Your task to perform on an android device: delete location history Image 0: 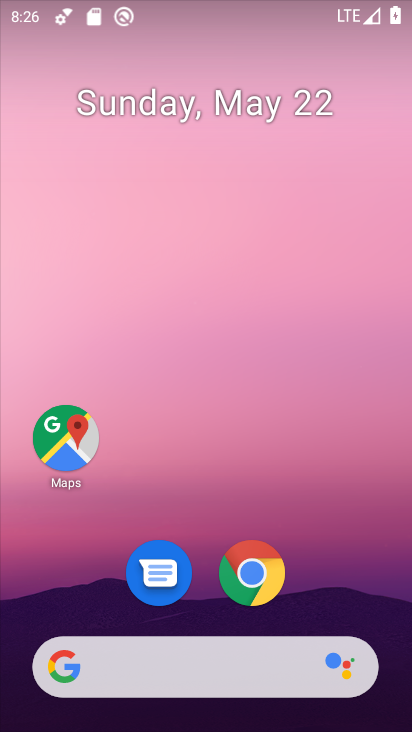
Step 0: drag from (204, 596) to (260, 174)
Your task to perform on an android device: delete location history Image 1: 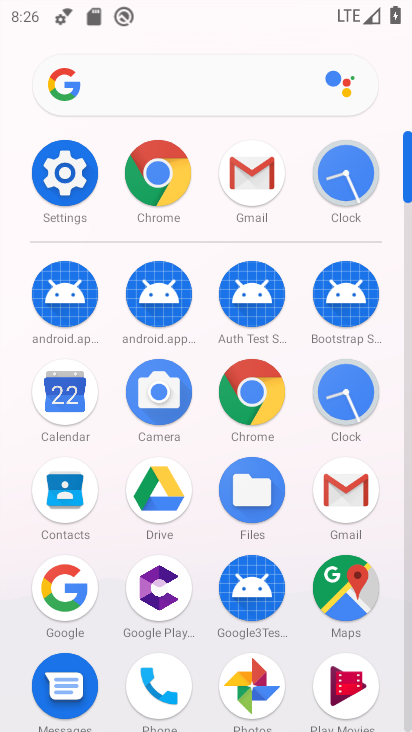
Step 1: click (55, 173)
Your task to perform on an android device: delete location history Image 2: 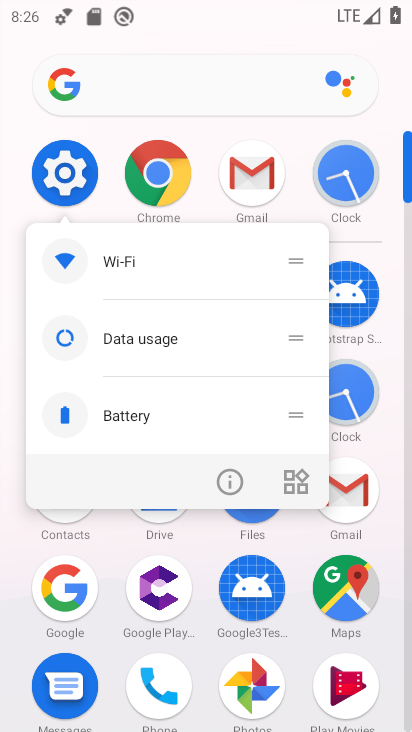
Step 2: click (229, 491)
Your task to perform on an android device: delete location history Image 3: 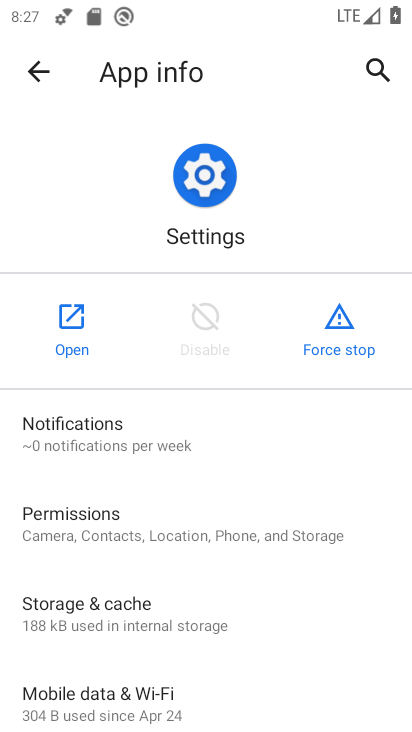
Step 3: click (69, 323)
Your task to perform on an android device: delete location history Image 4: 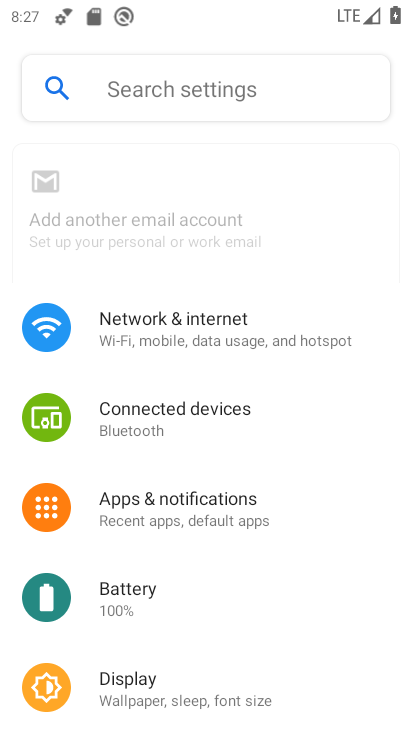
Step 4: drag from (192, 517) to (264, 13)
Your task to perform on an android device: delete location history Image 5: 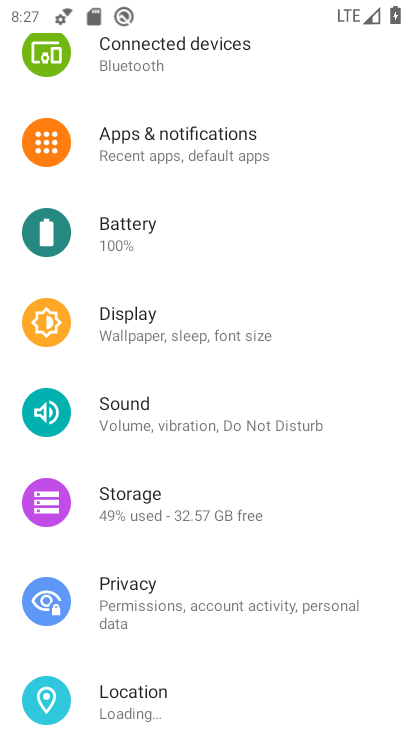
Step 5: drag from (218, 562) to (290, 36)
Your task to perform on an android device: delete location history Image 6: 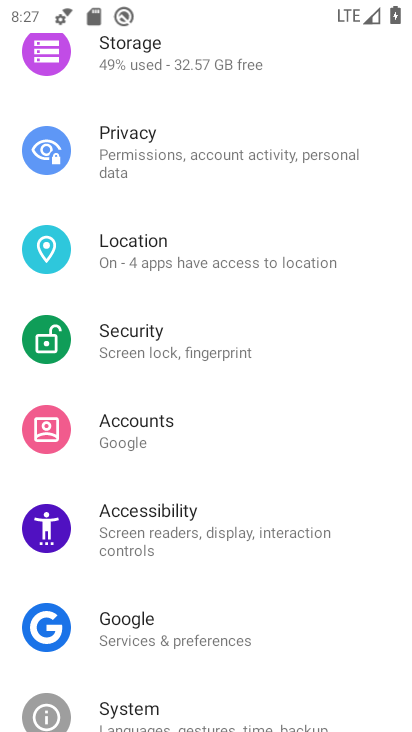
Step 6: click (187, 266)
Your task to perform on an android device: delete location history Image 7: 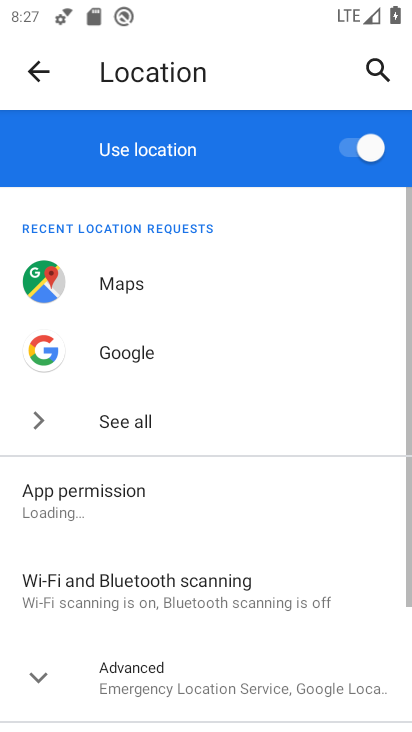
Step 7: drag from (257, 541) to (317, 87)
Your task to perform on an android device: delete location history Image 8: 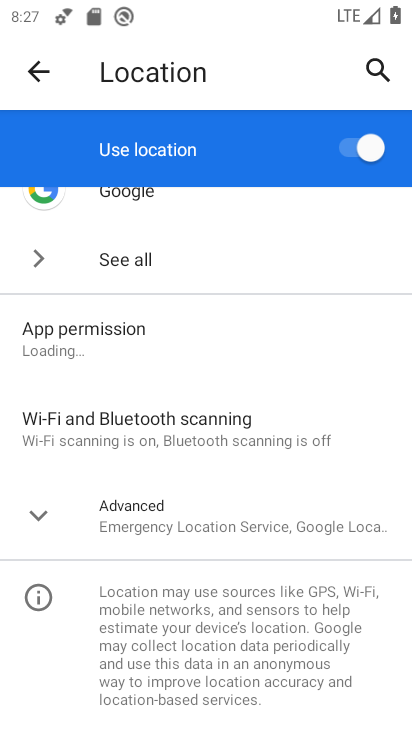
Step 8: click (67, 519)
Your task to perform on an android device: delete location history Image 9: 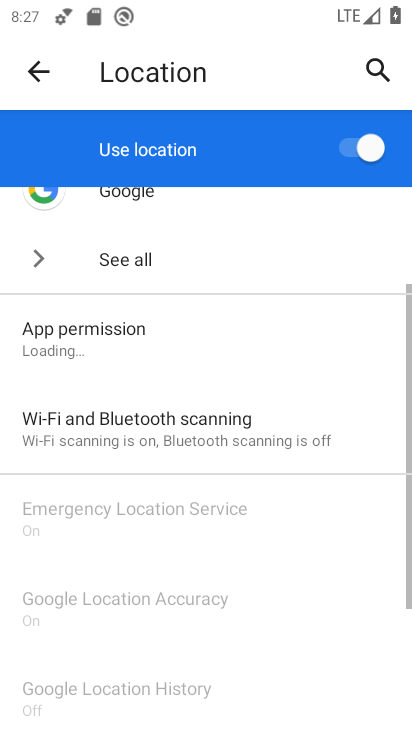
Step 9: drag from (79, 522) to (273, 79)
Your task to perform on an android device: delete location history Image 10: 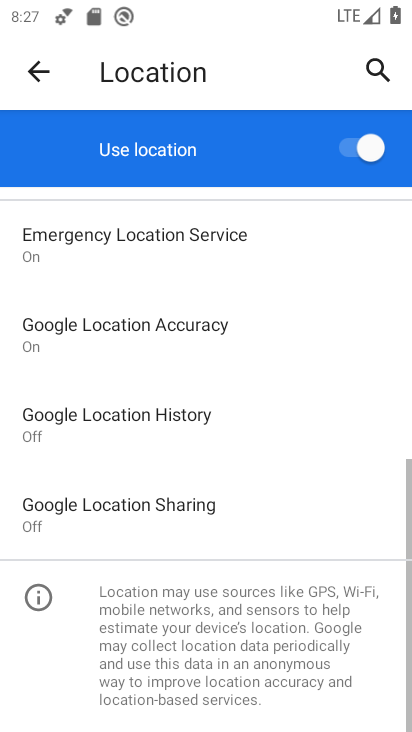
Step 10: click (114, 398)
Your task to perform on an android device: delete location history Image 11: 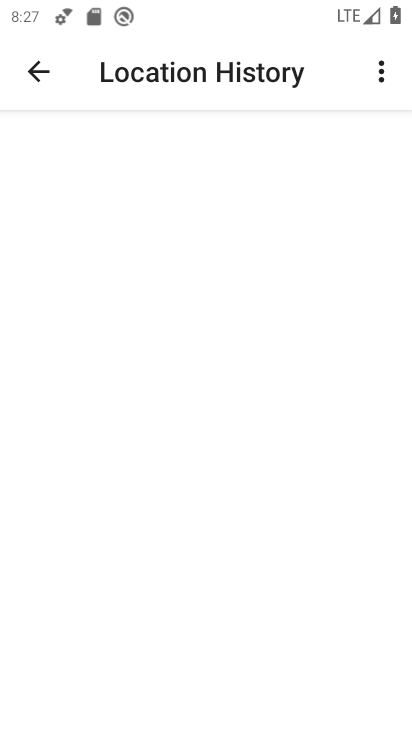
Step 11: drag from (264, 319) to (291, 115)
Your task to perform on an android device: delete location history Image 12: 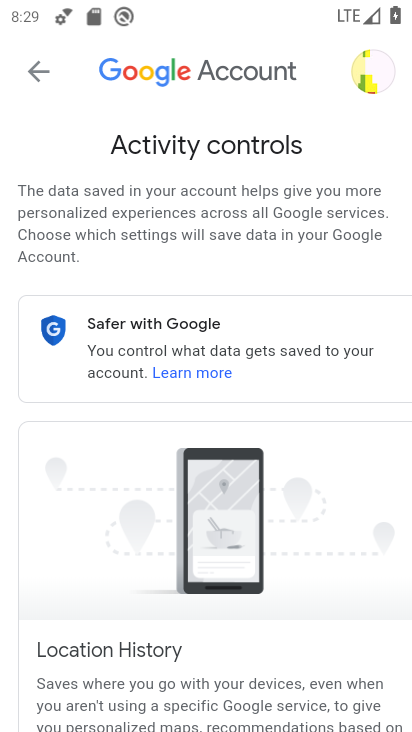
Step 12: drag from (180, 269) to (217, 5)
Your task to perform on an android device: delete location history Image 13: 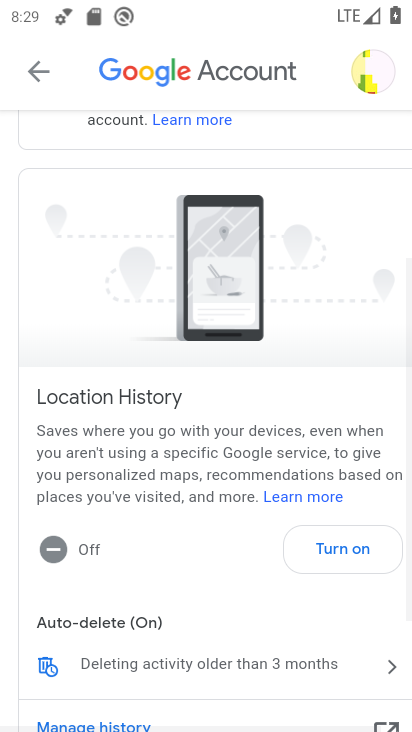
Step 13: drag from (167, 666) to (250, 97)
Your task to perform on an android device: delete location history Image 14: 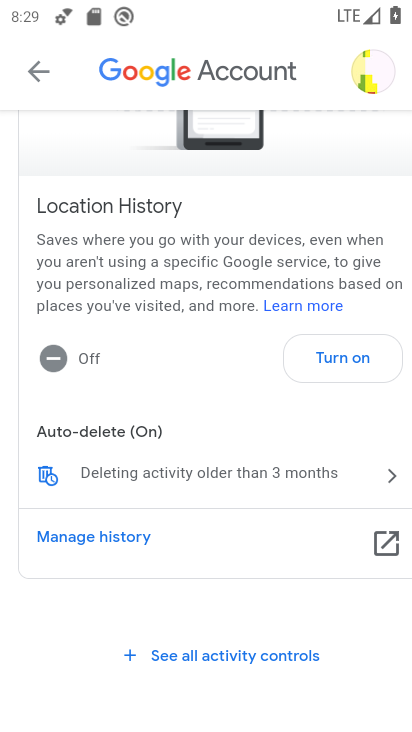
Step 14: click (48, 475)
Your task to perform on an android device: delete location history Image 15: 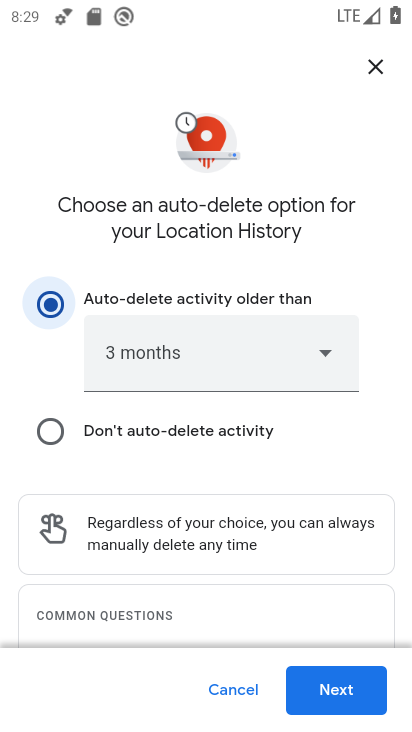
Step 15: drag from (246, 286) to (266, 149)
Your task to perform on an android device: delete location history Image 16: 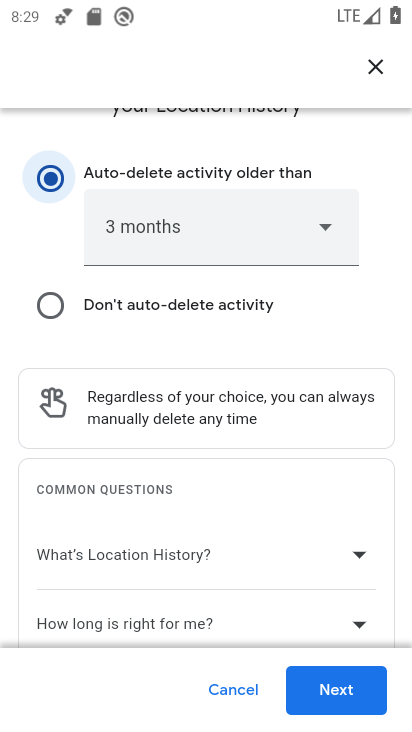
Step 16: click (330, 664)
Your task to perform on an android device: delete location history Image 17: 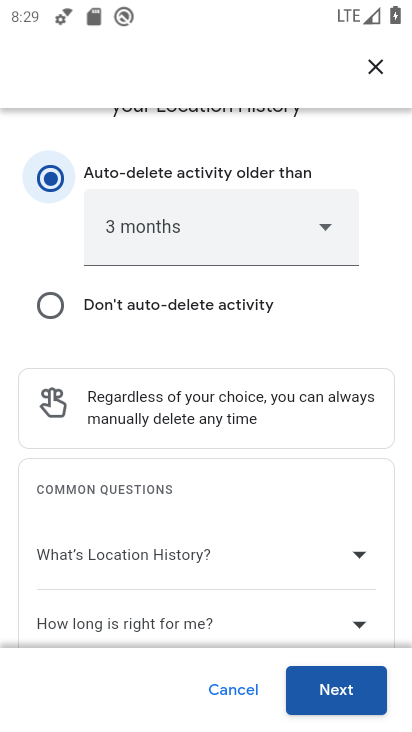
Step 17: click (338, 689)
Your task to perform on an android device: delete location history Image 18: 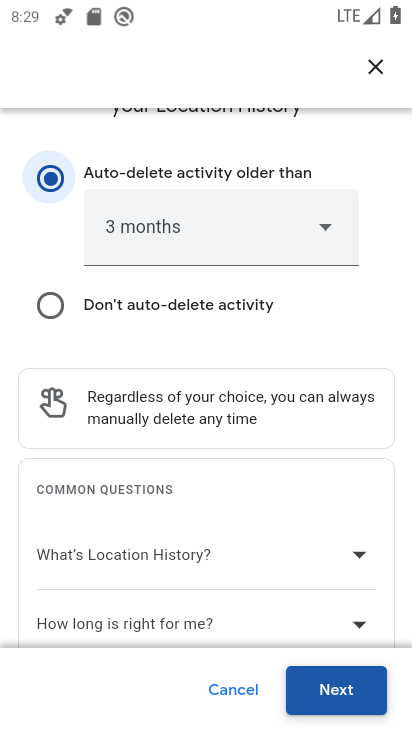
Step 18: click (329, 679)
Your task to perform on an android device: delete location history Image 19: 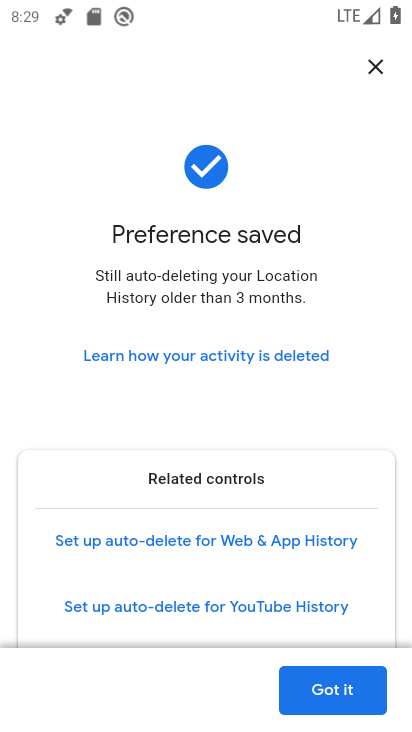
Step 19: click (341, 696)
Your task to perform on an android device: delete location history Image 20: 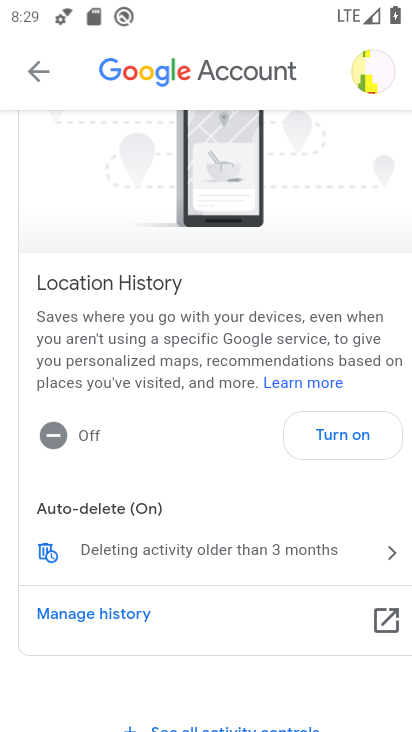
Step 20: task complete